Your task to perform on an android device: Open Google Maps Image 0: 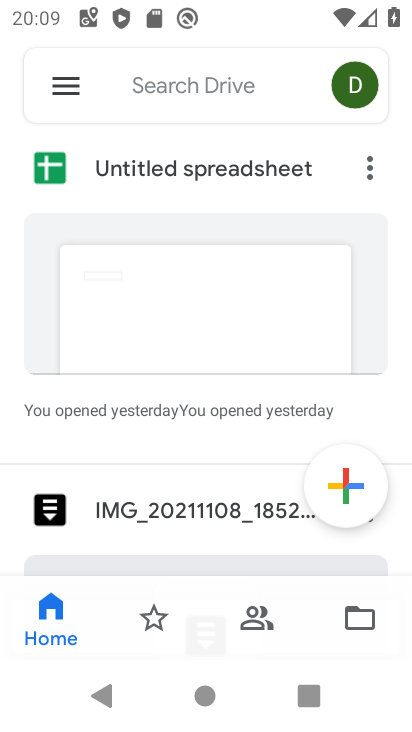
Step 0: press home button
Your task to perform on an android device: Open Google Maps Image 1: 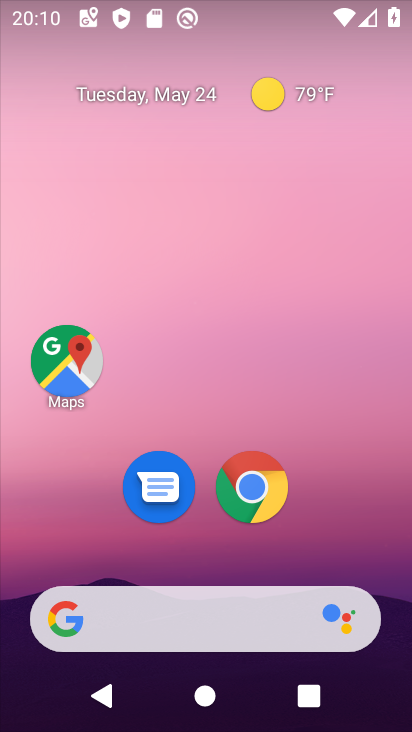
Step 1: click (72, 364)
Your task to perform on an android device: Open Google Maps Image 2: 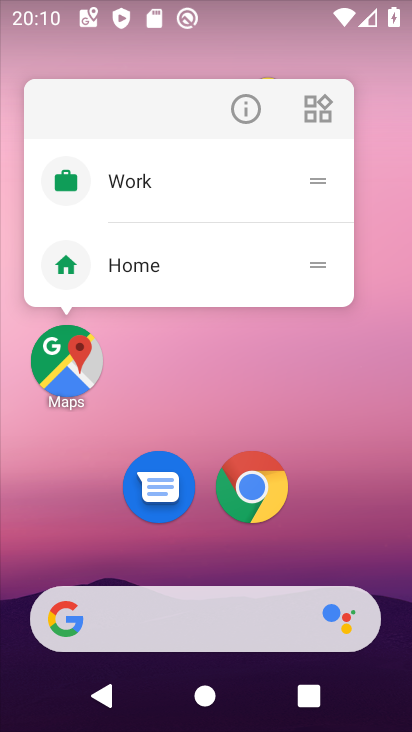
Step 2: click (82, 361)
Your task to perform on an android device: Open Google Maps Image 3: 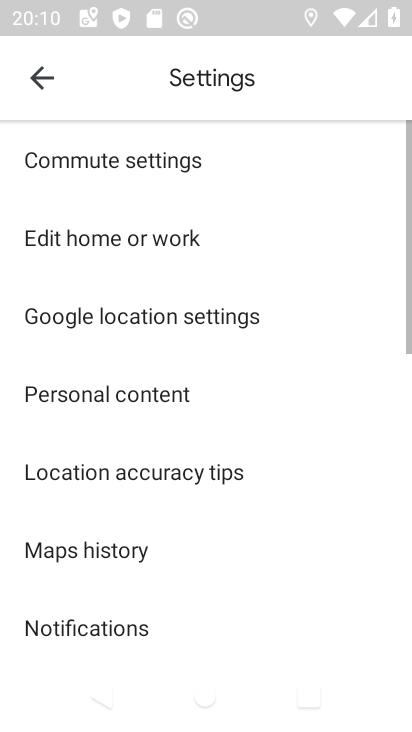
Step 3: task complete